Your task to perform on an android device: change keyboard looks Image 0: 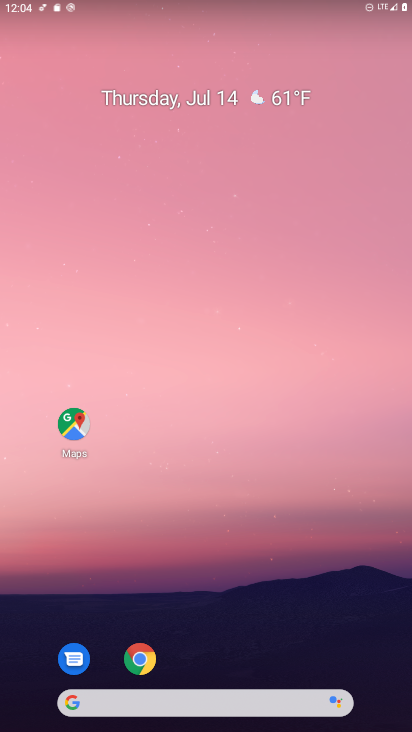
Step 0: drag from (375, 640) to (304, 159)
Your task to perform on an android device: change keyboard looks Image 1: 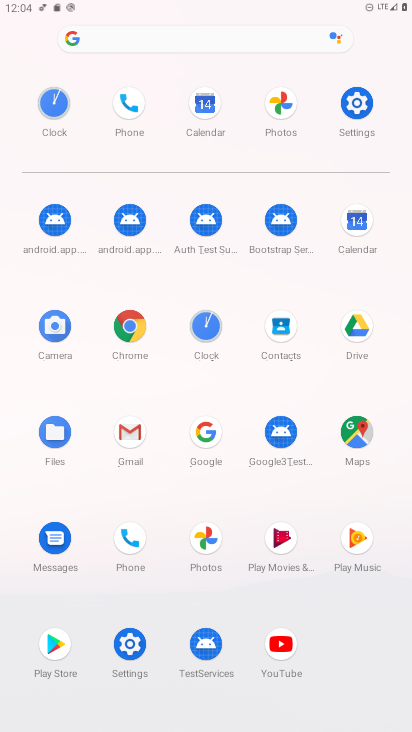
Step 1: click (131, 646)
Your task to perform on an android device: change keyboard looks Image 2: 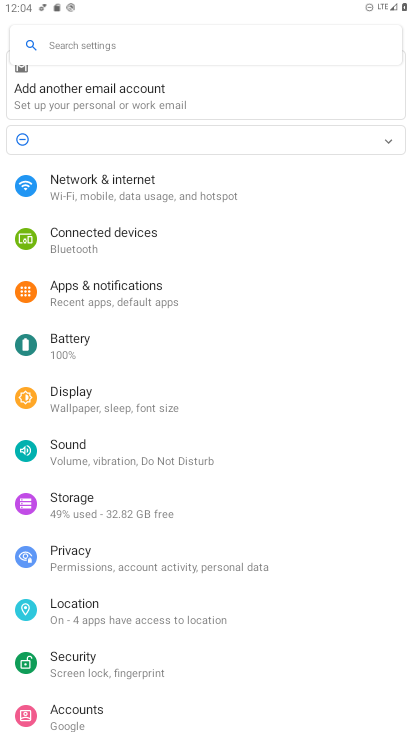
Step 2: drag from (273, 683) to (274, 274)
Your task to perform on an android device: change keyboard looks Image 3: 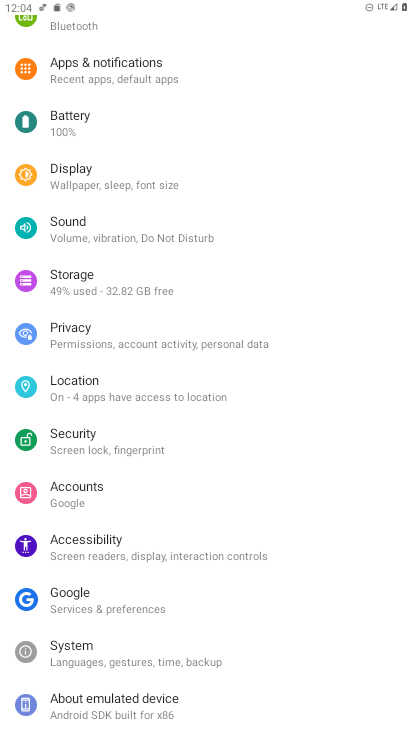
Step 3: click (71, 648)
Your task to perform on an android device: change keyboard looks Image 4: 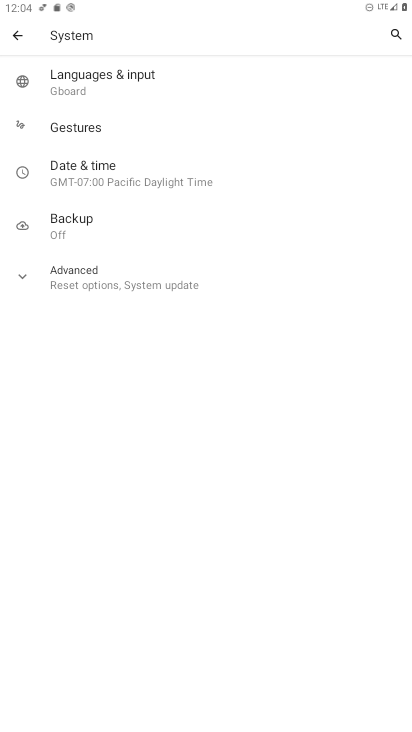
Step 4: click (82, 76)
Your task to perform on an android device: change keyboard looks Image 5: 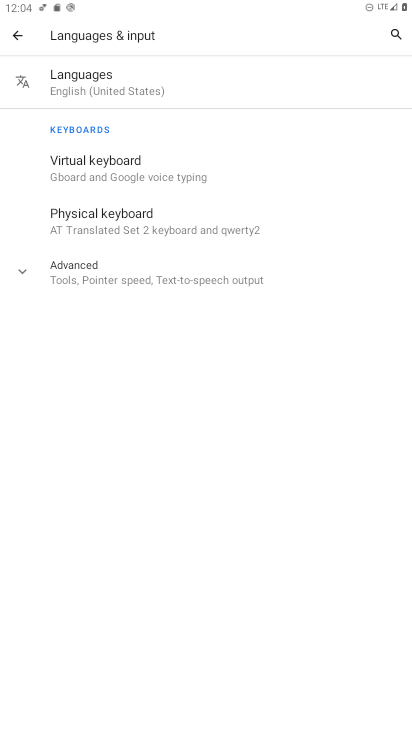
Step 5: click (91, 217)
Your task to perform on an android device: change keyboard looks Image 6: 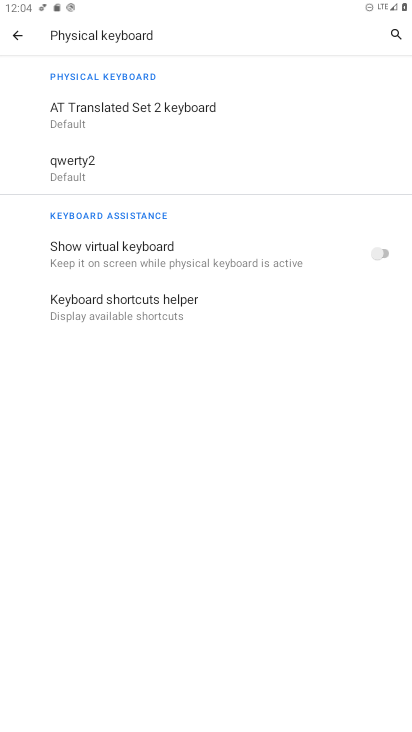
Step 6: click (72, 168)
Your task to perform on an android device: change keyboard looks Image 7: 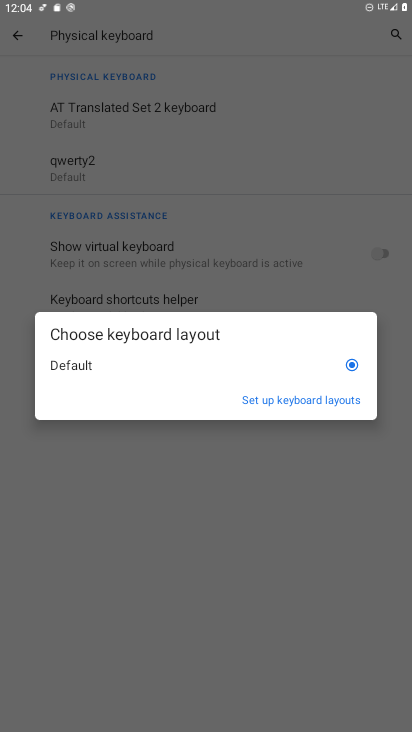
Step 7: click (302, 405)
Your task to perform on an android device: change keyboard looks Image 8: 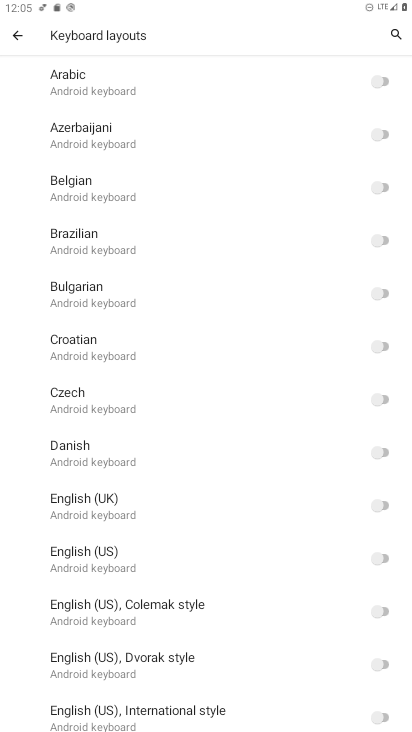
Step 8: click (392, 558)
Your task to perform on an android device: change keyboard looks Image 9: 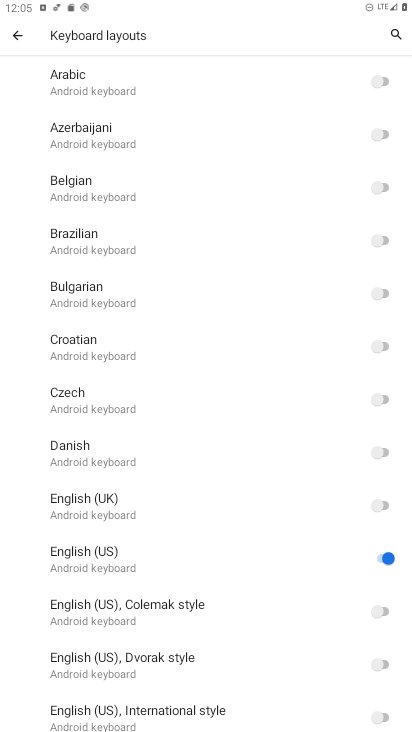
Step 9: task complete